Your task to perform on an android device: Go to accessibility settings Image 0: 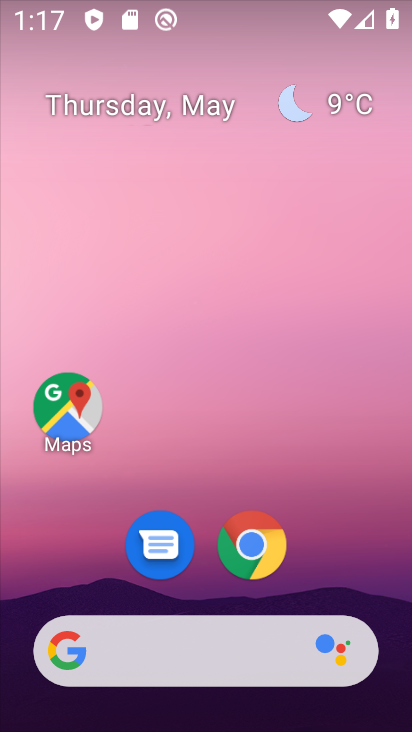
Step 0: drag from (393, 622) to (325, 176)
Your task to perform on an android device: Go to accessibility settings Image 1: 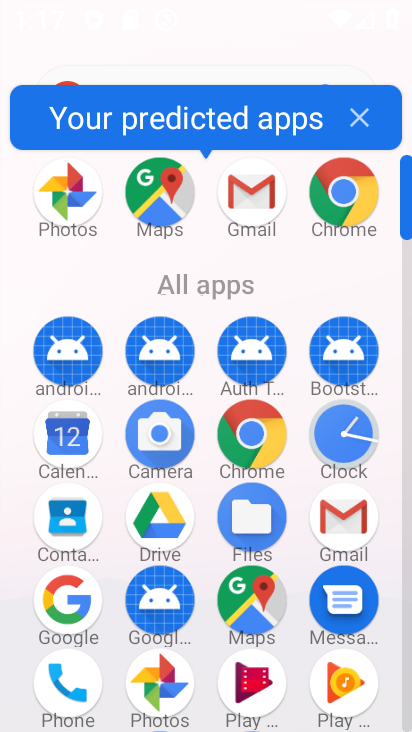
Step 1: click (410, 694)
Your task to perform on an android device: Go to accessibility settings Image 2: 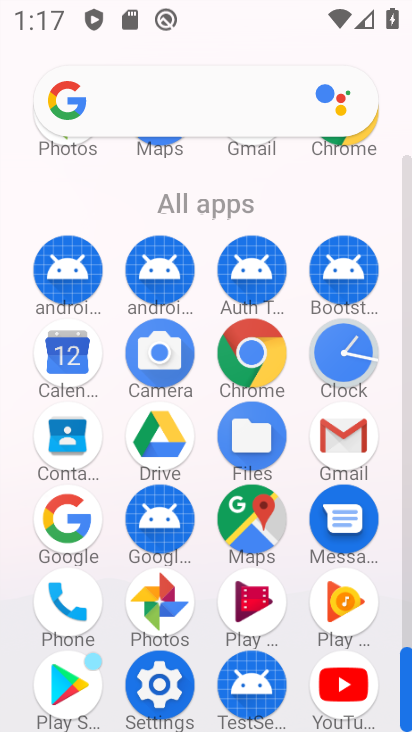
Step 2: click (156, 682)
Your task to perform on an android device: Go to accessibility settings Image 3: 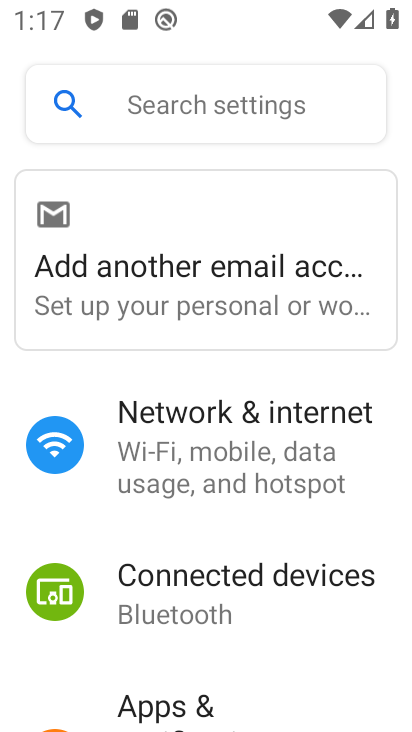
Step 3: drag from (326, 675) to (342, 162)
Your task to perform on an android device: Go to accessibility settings Image 4: 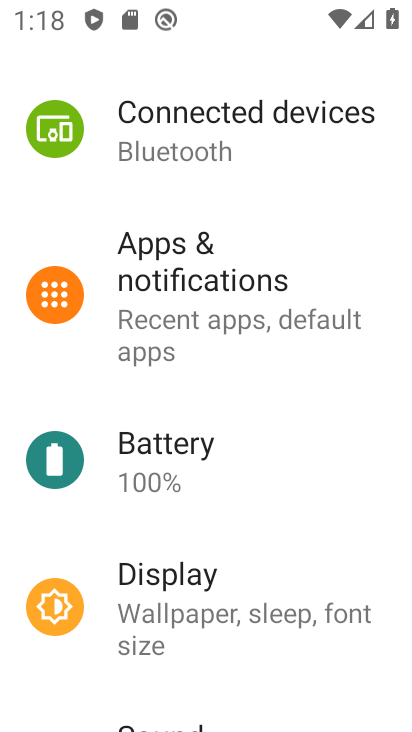
Step 4: drag from (348, 661) to (366, 84)
Your task to perform on an android device: Go to accessibility settings Image 5: 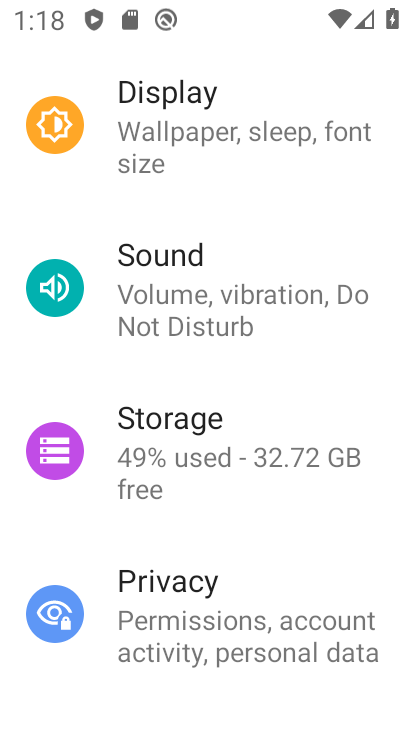
Step 5: drag from (379, 642) to (330, 40)
Your task to perform on an android device: Go to accessibility settings Image 6: 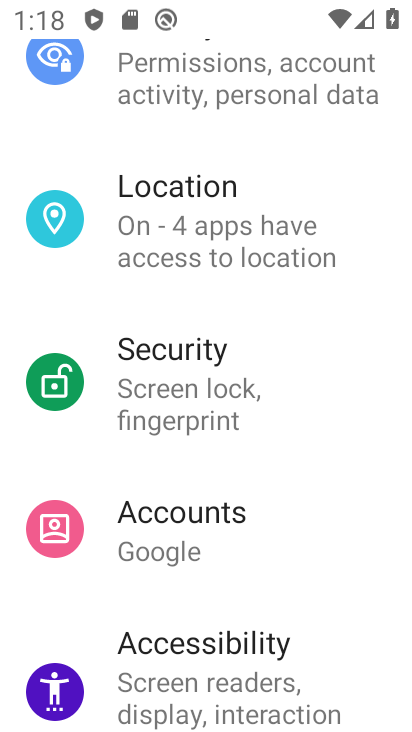
Step 6: drag from (349, 682) to (379, 125)
Your task to perform on an android device: Go to accessibility settings Image 7: 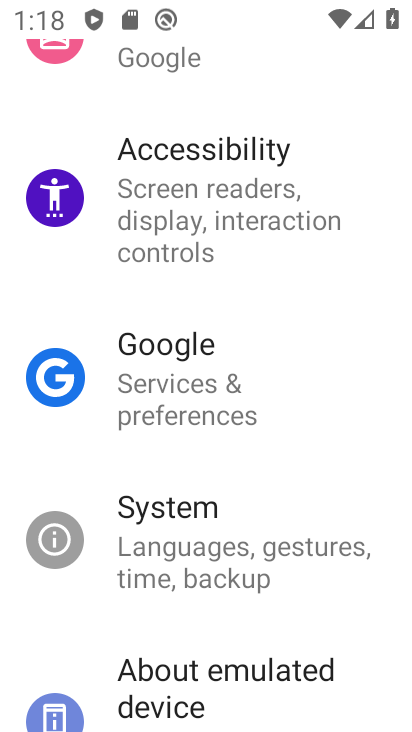
Step 7: click (171, 186)
Your task to perform on an android device: Go to accessibility settings Image 8: 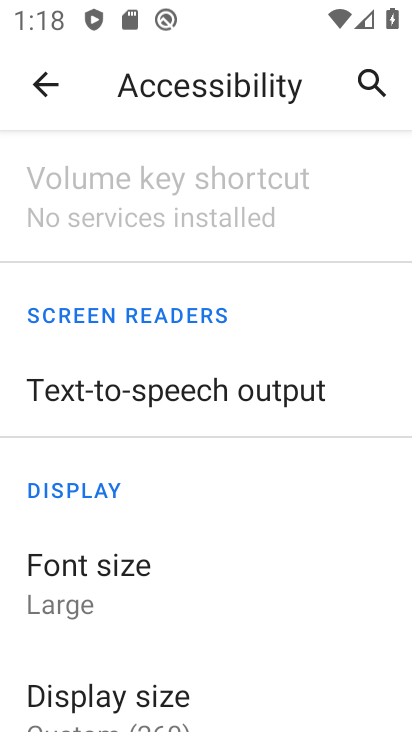
Step 8: task complete